Your task to perform on an android device: Check the weather Image 0: 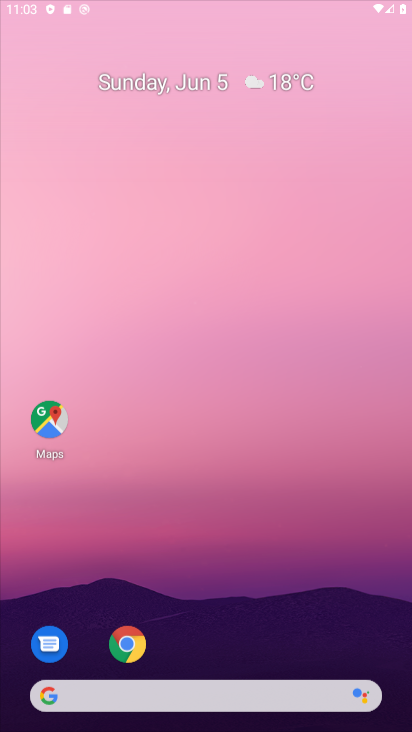
Step 0: click (295, 354)
Your task to perform on an android device: Check the weather Image 1: 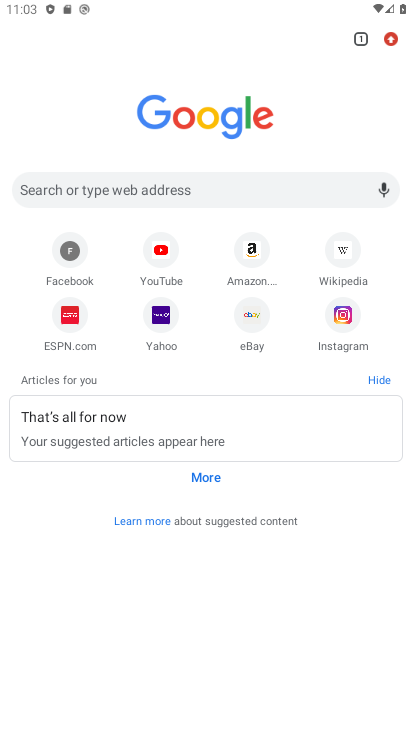
Step 1: click (153, 189)
Your task to perform on an android device: Check the weather Image 2: 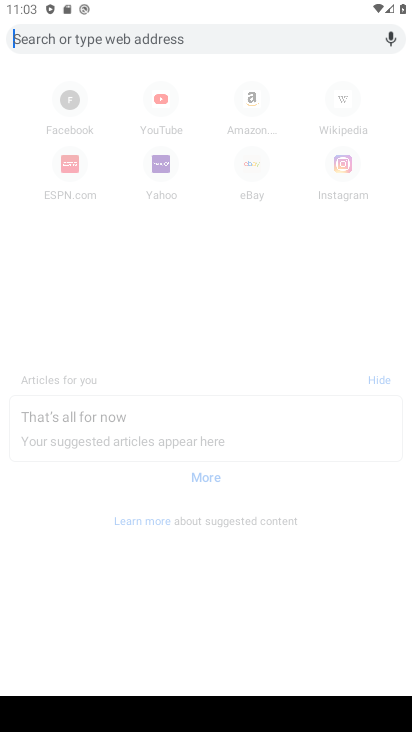
Step 2: drag from (396, 696) to (342, 544)
Your task to perform on an android device: Check the weather Image 3: 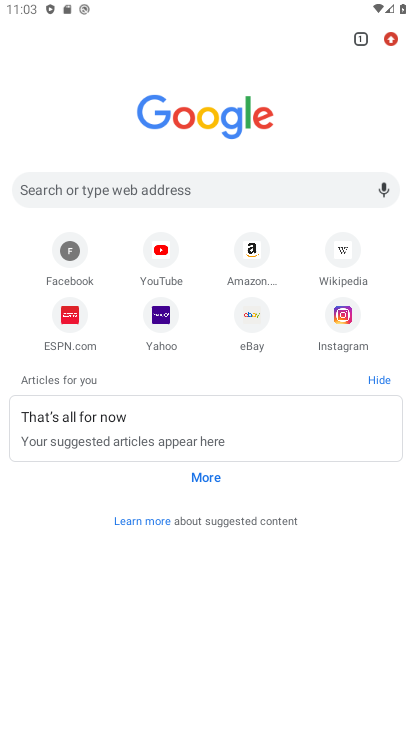
Step 3: drag from (393, 715) to (356, 574)
Your task to perform on an android device: Check the weather Image 4: 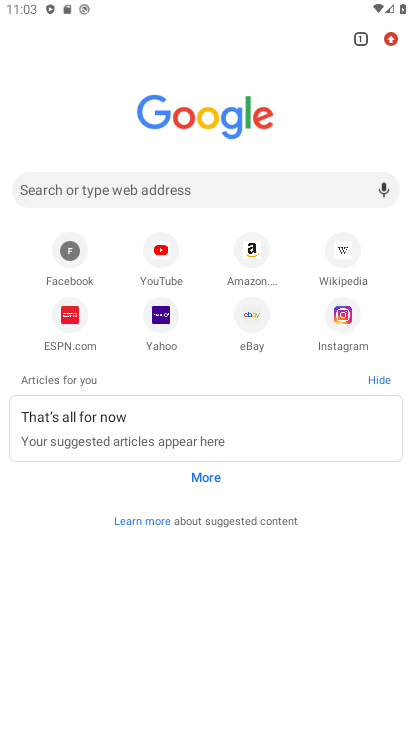
Step 4: press home button
Your task to perform on an android device: Check the weather Image 5: 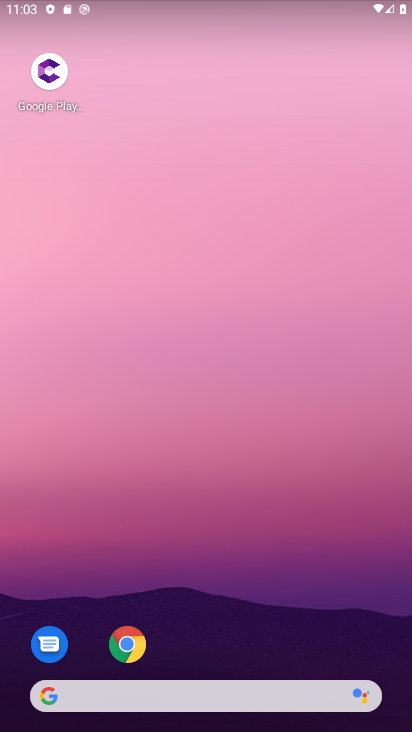
Step 5: click (191, 694)
Your task to perform on an android device: Check the weather Image 6: 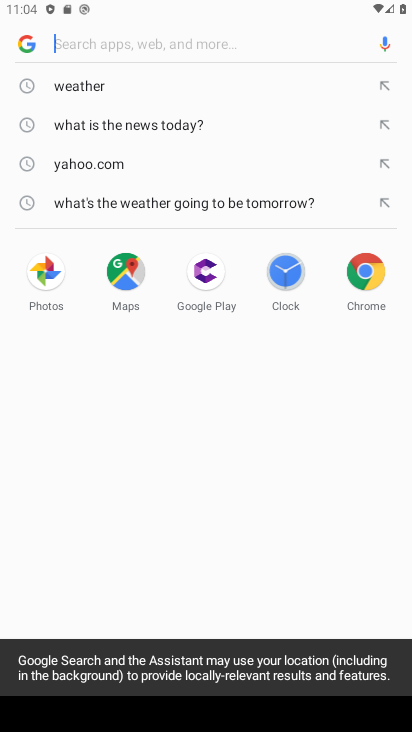
Step 6: click (78, 62)
Your task to perform on an android device: Check the weather Image 7: 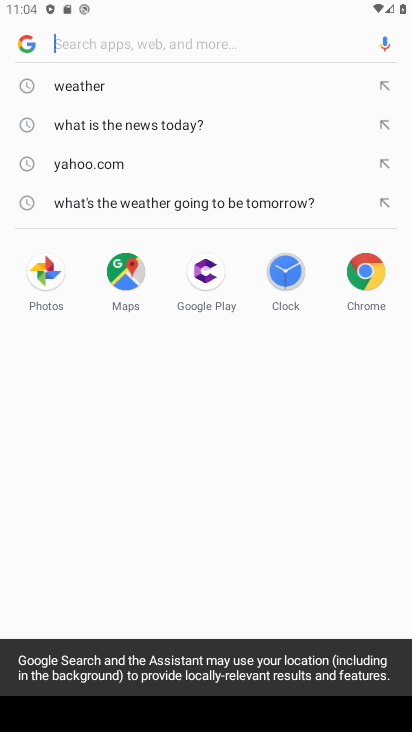
Step 7: click (82, 79)
Your task to perform on an android device: Check the weather Image 8: 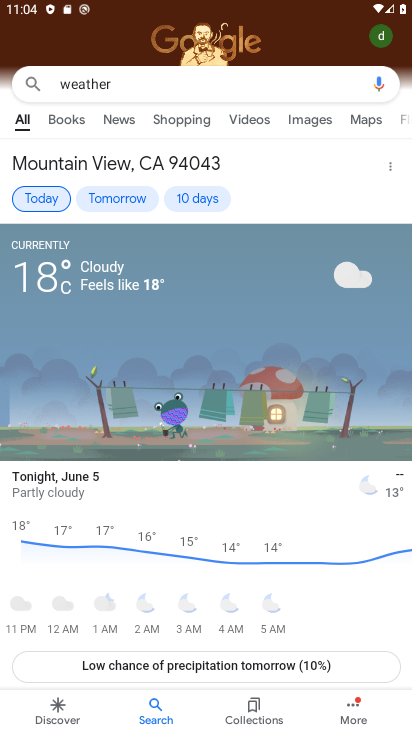
Step 8: task complete